Your task to perform on an android device: set the stopwatch Image 0: 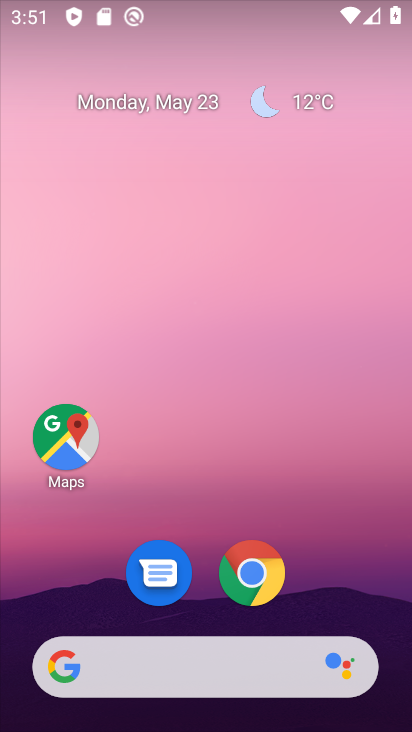
Step 0: press home button
Your task to perform on an android device: set the stopwatch Image 1: 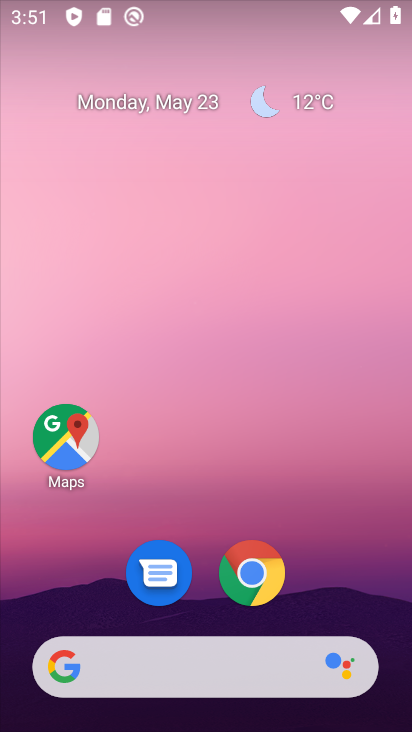
Step 1: drag from (44, 508) to (197, 173)
Your task to perform on an android device: set the stopwatch Image 2: 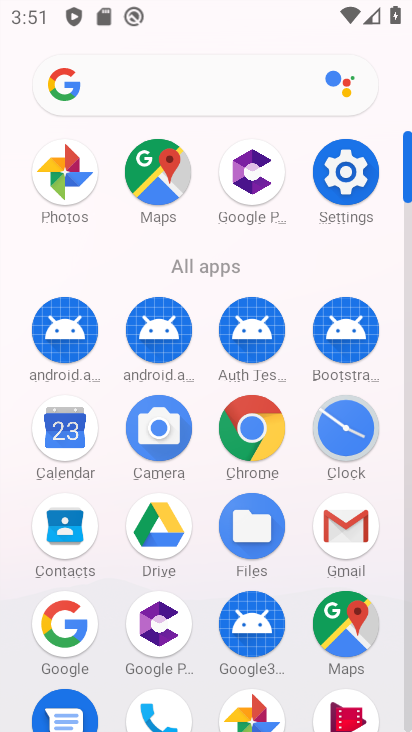
Step 2: click (352, 428)
Your task to perform on an android device: set the stopwatch Image 3: 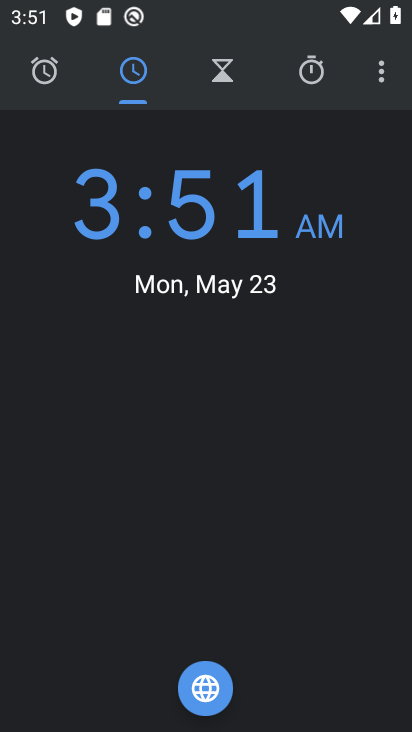
Step 3: click (307, 70)
Your task to perform on an android device: set the stopwatch Image 4: 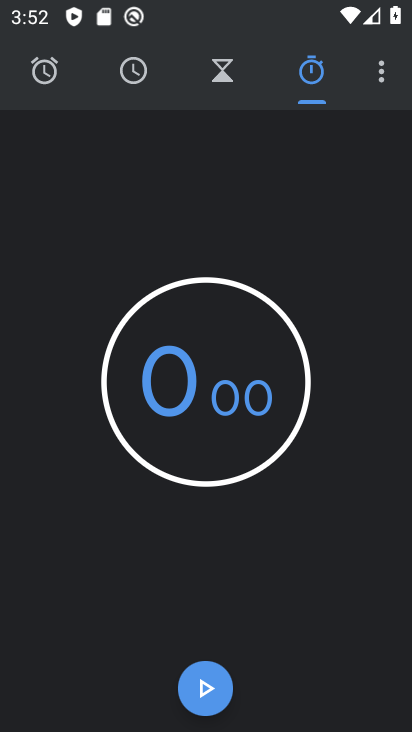
Step 4: click (202, 690)
Your task to perform on an android device: set the stopwatch Image 5: 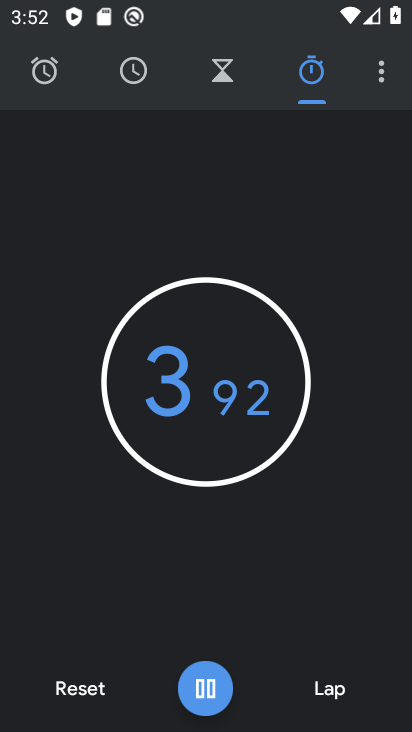
Step 5: task complete